Your task to perform on an android device: Open Google Chrome and click the shortcut for Amazon.com Image 0: 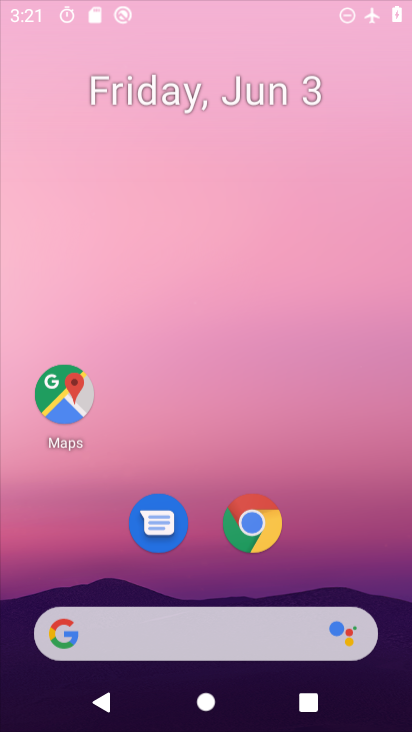
Step 0: drag from (308, 568) to (321, 218)
Your task to perform on an android device: Open Google Chrome and click the shortcut for Amazon.com Image 1: 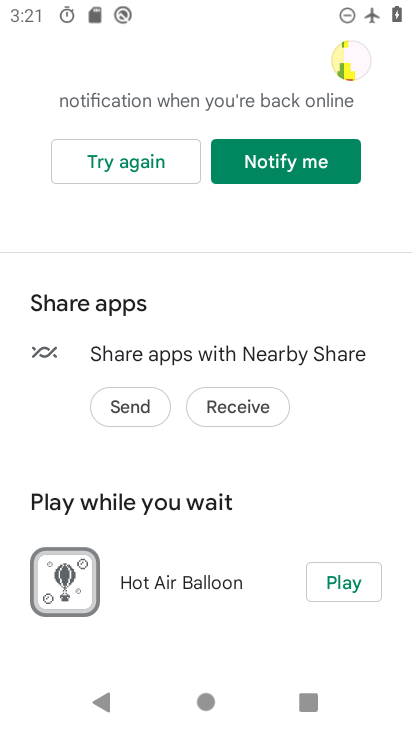
Step 1: press home button
Your task to perform on an android device: Open Google Chrome and click the shortcut for Amazon.com Image 2: 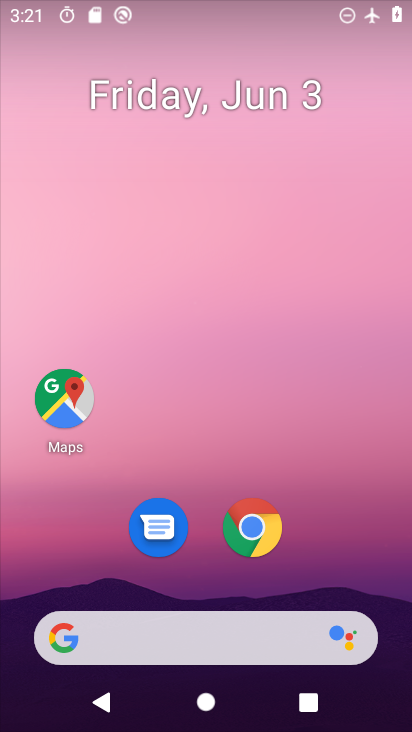
Step 2: drag from (275, 566) to (285, 240)
Your task to perform on an android device: Open Google Chrome and click the shortcut for Amazon.com Image 3: 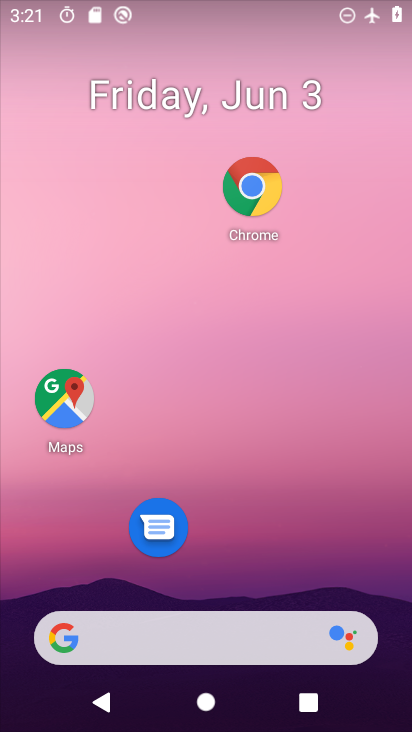
Step 3: click (252, 181)
Your task to perform on an android device: Open Google Chrome and click the shortcut for Amazon.com Image 4: 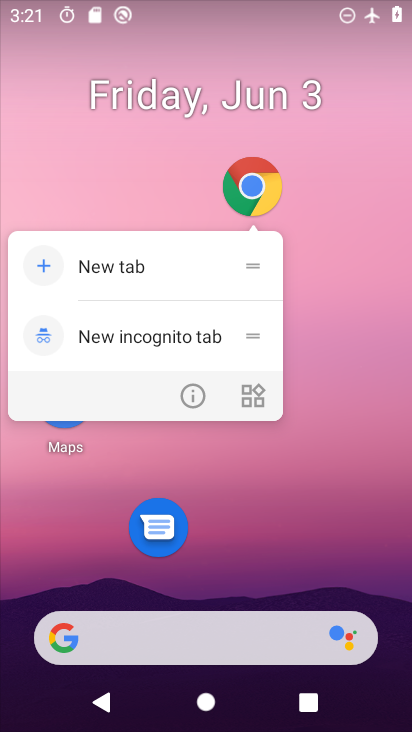
Step 4: click (260, 178)
Your task to perform on an android device: Open Google Chrome and click the shortcut for Amazon.com Image 5: 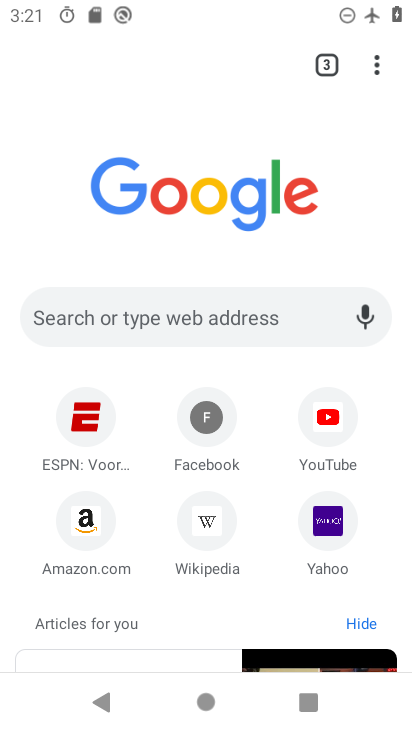
Step 5: click (82, 511)
Your task to perform on an android device: Open Google Chrome and click the shortcut for Amazon.com Image 6: 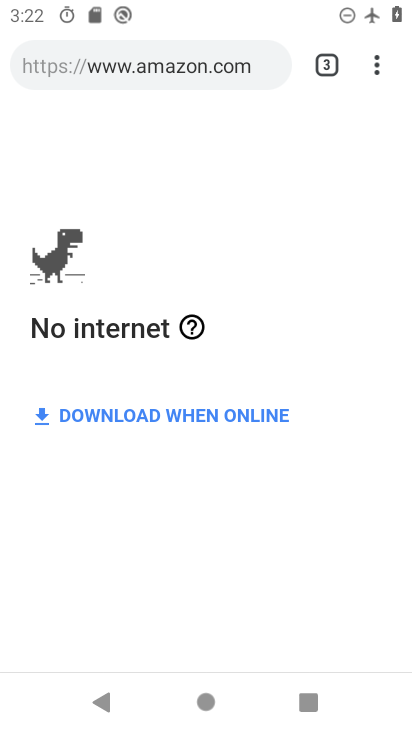
Step 6: task complete